Your task to perform on an android device: search for starred emails in the gmail app Image 0: 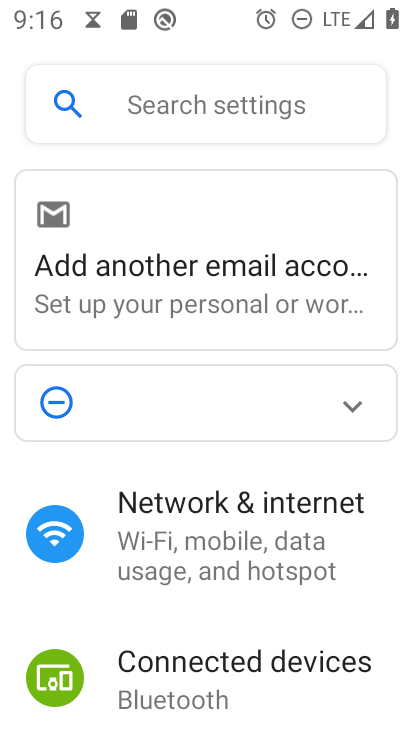
Step 0: press home button
Your task to perform on an android device: search for starred emails in the gmail app Image 1: 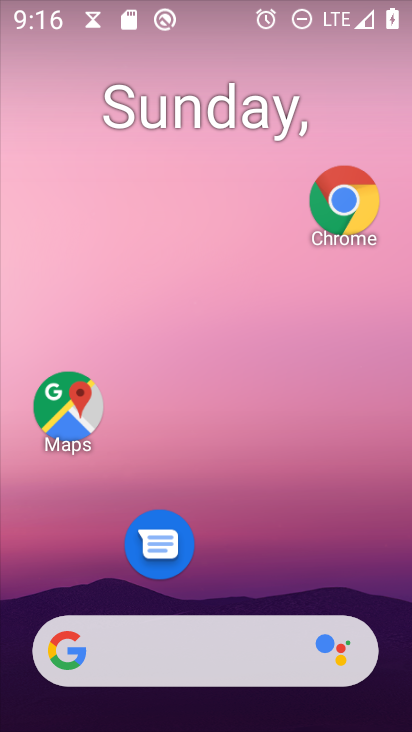
Step 1: drag from (249, 600) to (222, 14)
Your task to perform on an android device: search for starred emails in the gmail app Image 2: 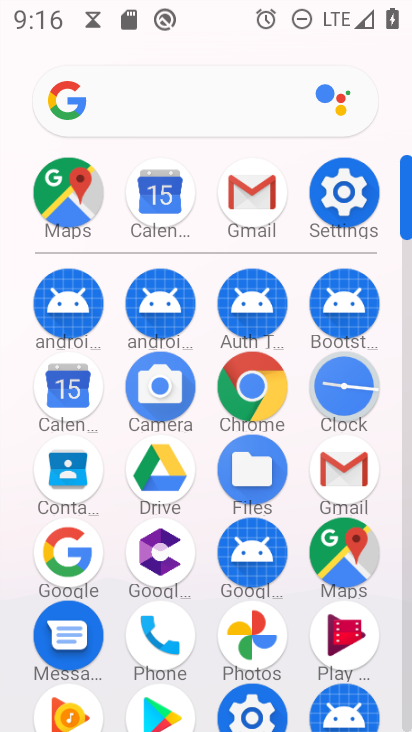
Step 2: click (334, 461)
Your task to perform on an android device: search for starred emails in the gmail app Image 3: 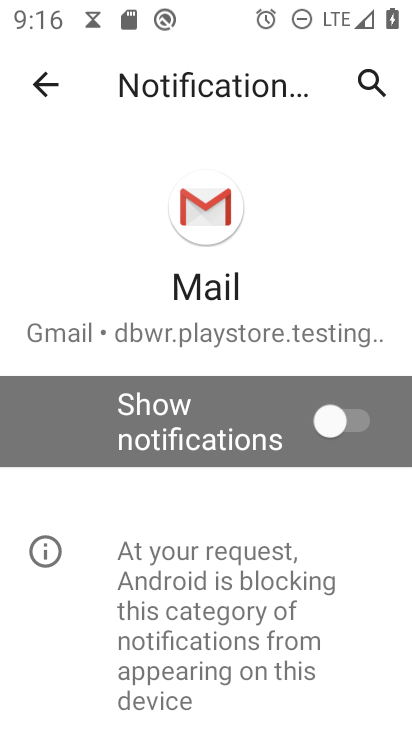
Step 3: click (38, 95)
Your task to perform on an android device: search for starred emails in the gmail app Image 4: 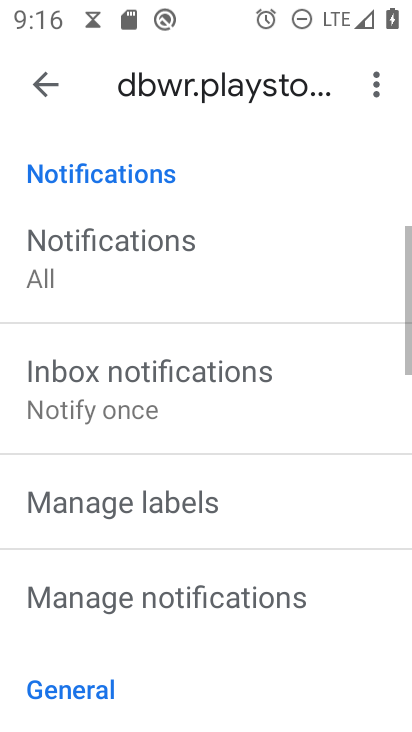
Step 4: click (45, 87)
Your task to perform on an android device: search for starred emails in the gmail app Image 5: 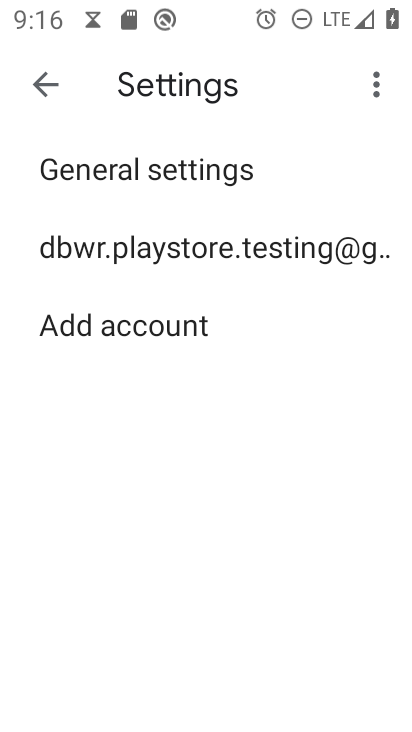
Step 5: click (46, 87)
Your task to perform on an android device: search for starred emails in the gmail app Image 6: 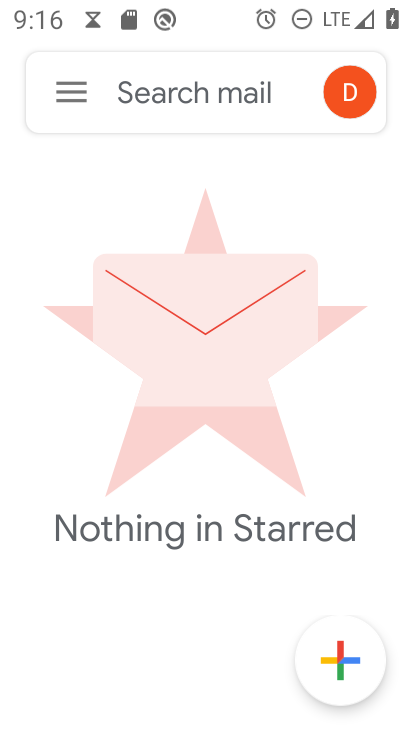
Step 6: click (46, 87)
Your task to perform on an android device: search for starred emails in the gmail app Image 7: 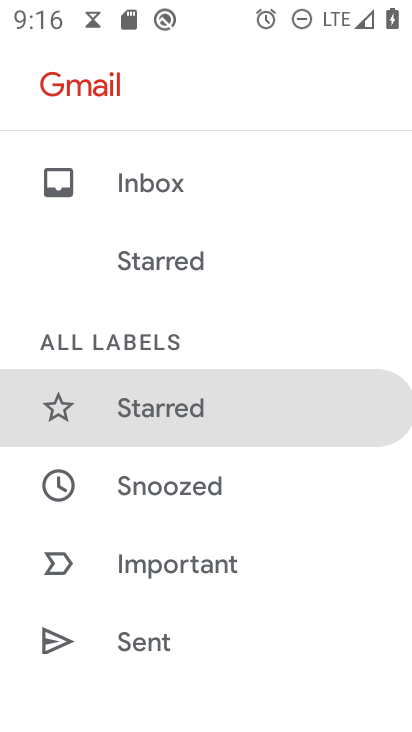
Step 7: click (174, 266)
Your task to perform on an android device: search for starred emails in the gmail app Image 8: 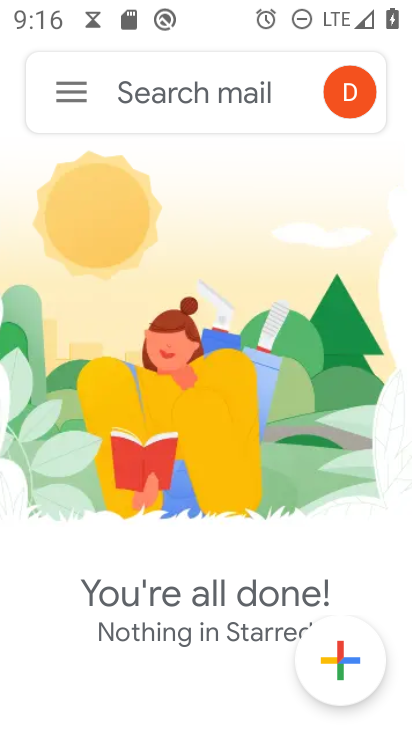
Step 8: task complete